Your task to perform on an android device: add a contact Image 0: 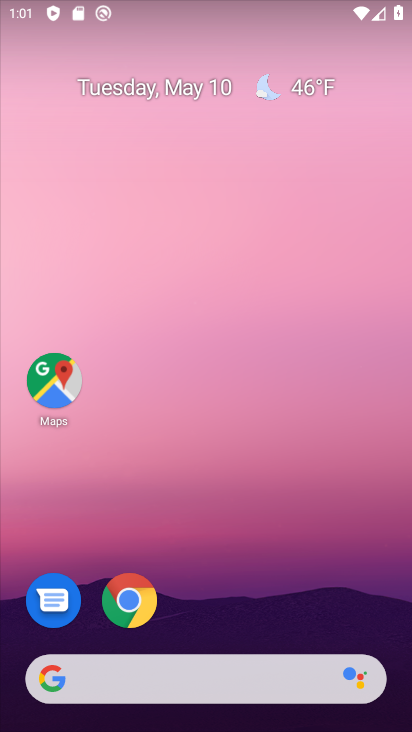
Step 0: press home button
Your task to perform on an android device: add a contact Image 1: 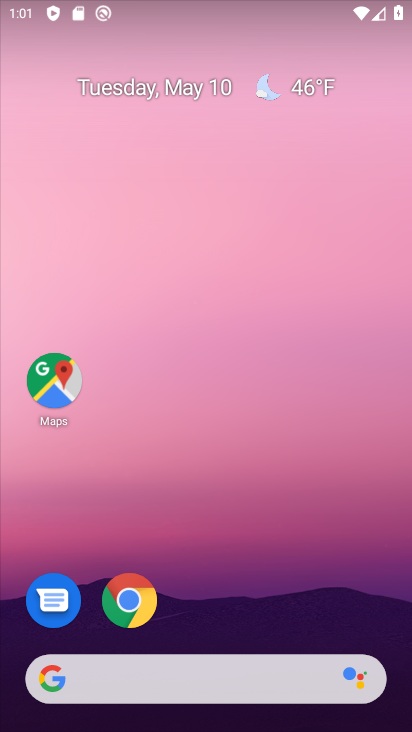
Step 1: drag from (177, 654) to (278, 204)
Your task to perform on an android device: add a contact Image 2: 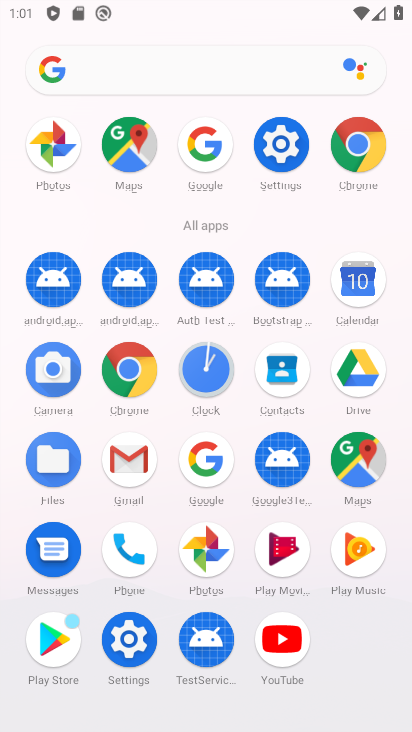
Step 2: click (286, 384)
Your task to perform on an android device: add a contact Image 3: 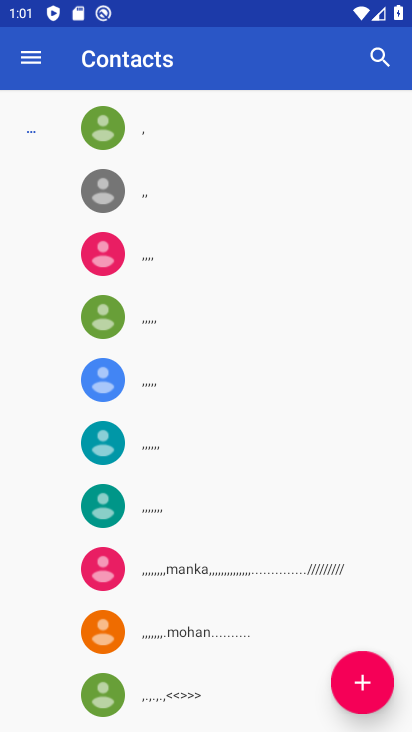
Step 3: click (361, 689)
Your task to perform on an android device: add a contact Image 4: 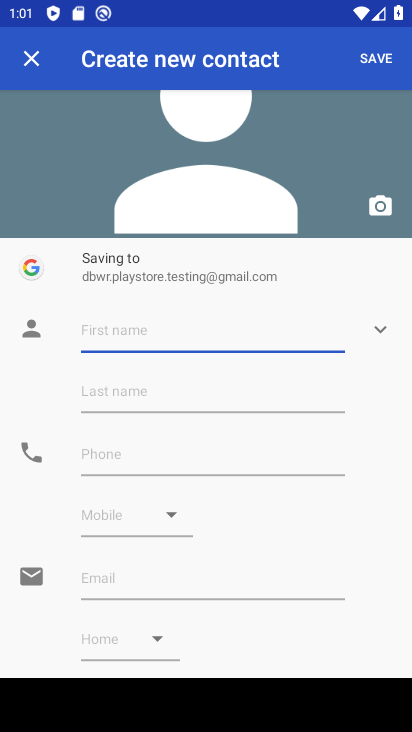
Step 4: click (93, 324)
Your task to perform on an android device: add a contact Image 5: 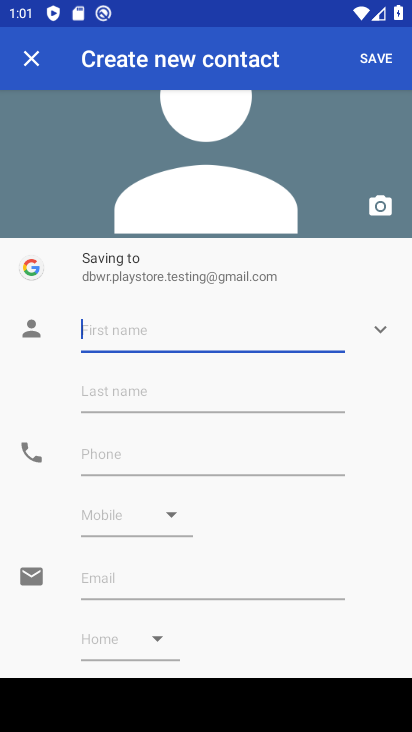
Step 5: type "chgfyj"
Your task to perform on an android device: add a contact Image 6: 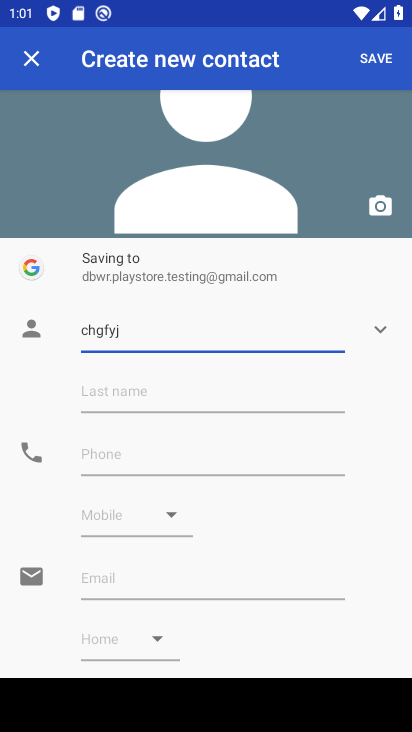
Step 6: click (135, 452)
Your task to perform on an android device: add a contact Image 7: 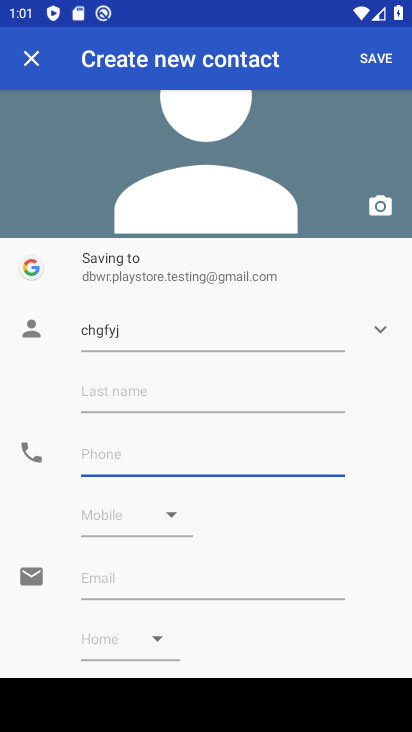
Step 7: type "5476"
Your task to perform on an android device: add a contact Image 8: 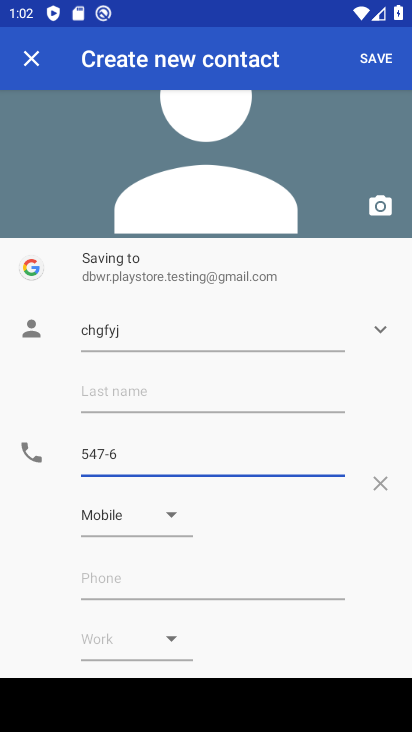
Step 8: click (369, 57)
Your task to perform on an android device: add a contact Image 9: 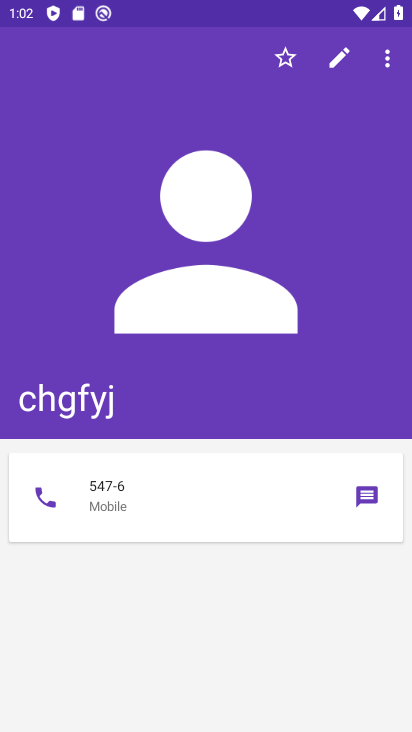
Step 9: task complete